Your task to perform on an android device: open chrome and create a bookmark for the current page Image 0: 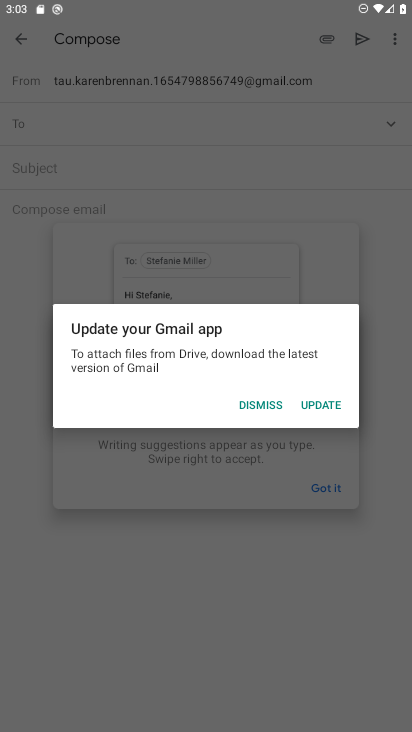
Step 0: press home button
Your task to perform on an android device: open chrome and create a bookmark for the current page Image 1: 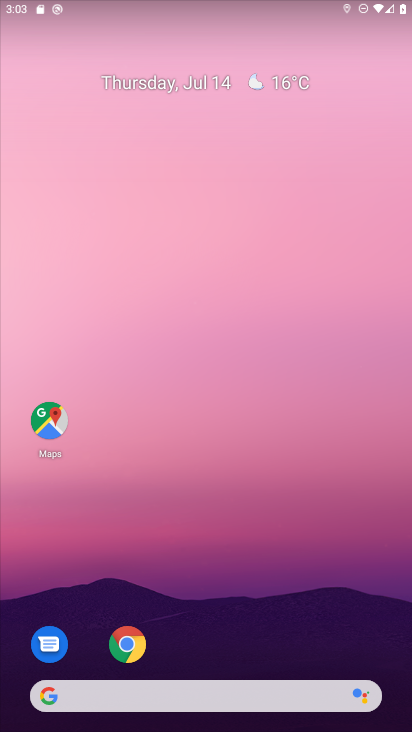
Step 1: click (136, 639)
Your task to perform on an android device: open chrome and create a bookmark for the current page Image 2: 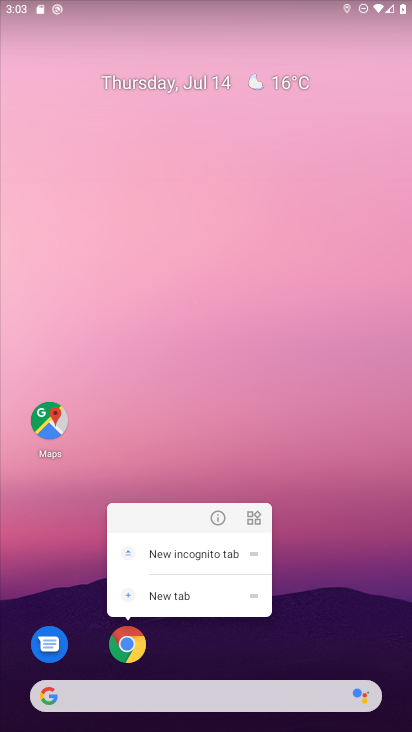
Step 2: click (130, 645)
Your task to perform on an android device: open chrome and create a bookmark for the current page Image 3: 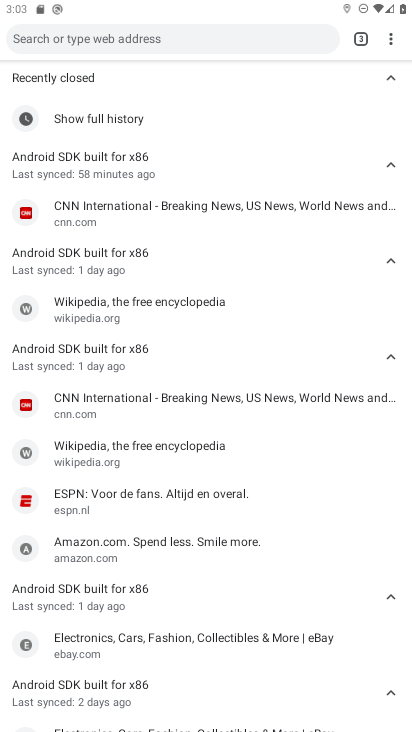
Step 3: click (392, 45)
Your task to perform on an android device: open chrome and create a bookmark for the current page Image 4: 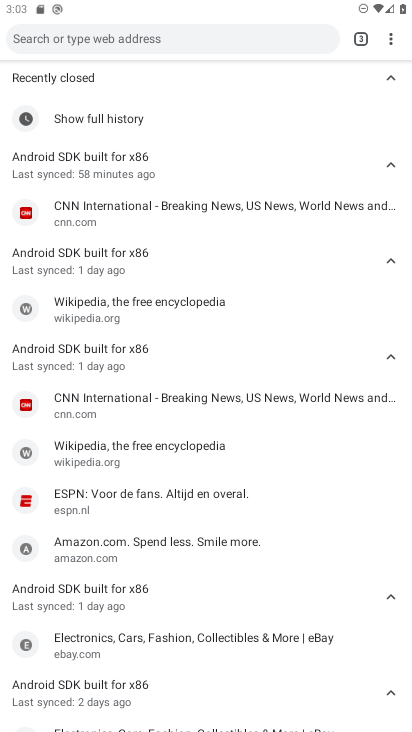
Step 4: click (361, 38)
Your task to perform on an android device: open chrome and create a bookmark for the current page Image 5: 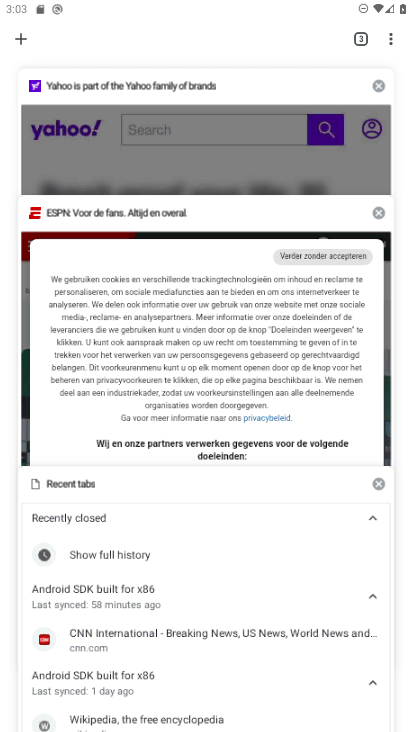
Step 5: click (20, 43)
Your task to perform on an android device: open chrome and create a bookmark for the current page Image 6: 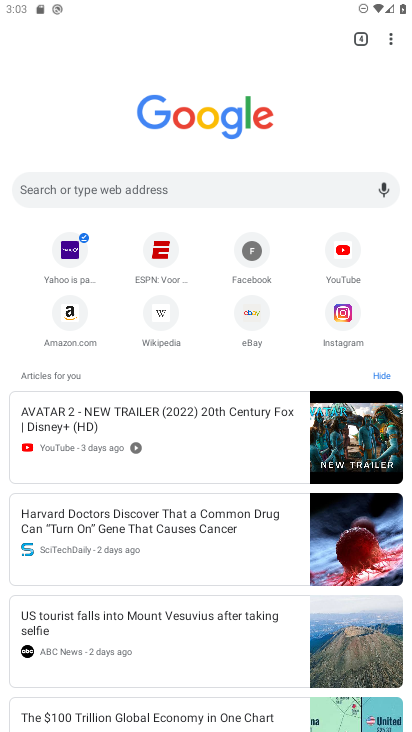
Step 6: drag from (157, 577) to (177, 298)
Your task to perform on an android device: open chrome and create a bookmark for the current page Image 7: 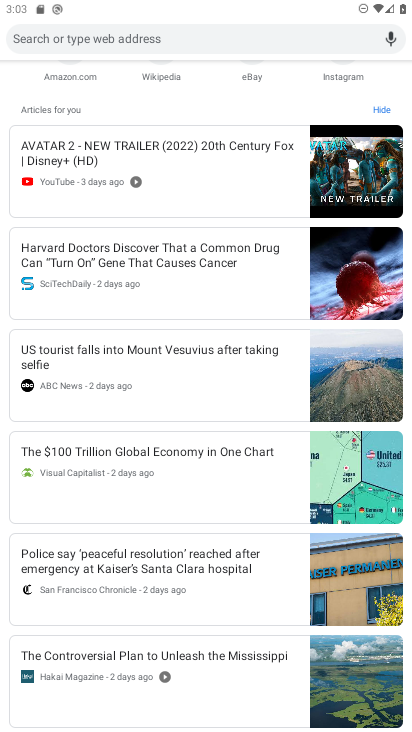
Step 7: click (175, 571)
Your task to perform on an android device: open chrome and create a bookmark for the current page Image 8: 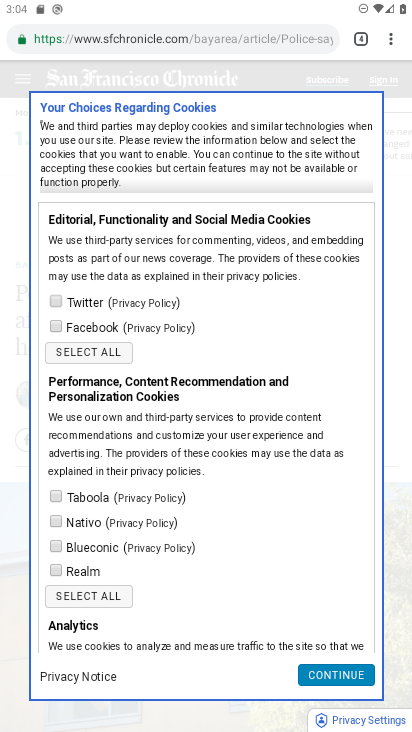
Step 8: click (392, 38)
Your task to perform on an android device: open chrome and create a bookmark for the current page Image 9: 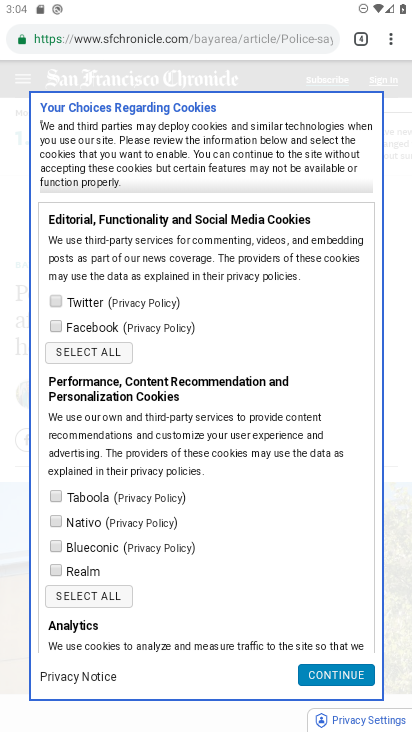
Step 9: click (392, 29)
Your task to perform on an android device: open chrome and create a bookmark for the current page Image 10: 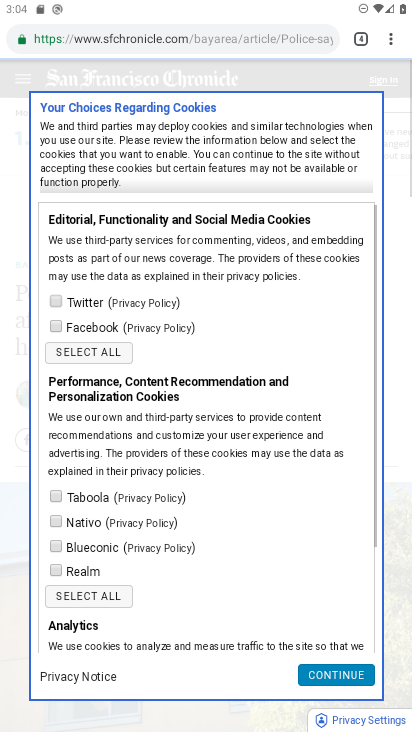
Step 10: task complete